Your task to perform on an android device: turn on javascript in the chrome app Image 0: 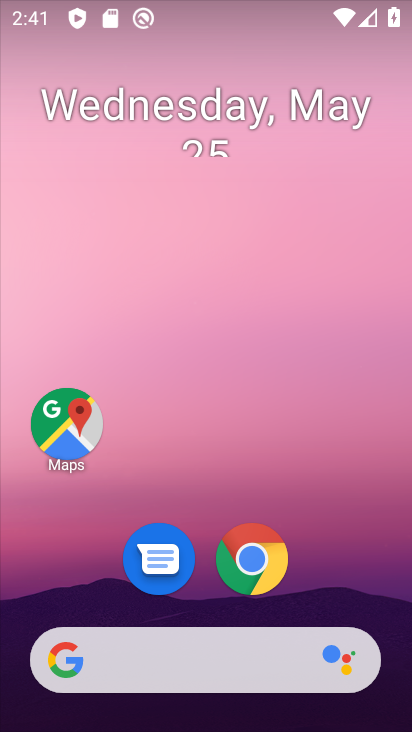
Step 0: click (250, 551)
Your task to perform on an android device: turn on javascript in the chrome app Image 1: 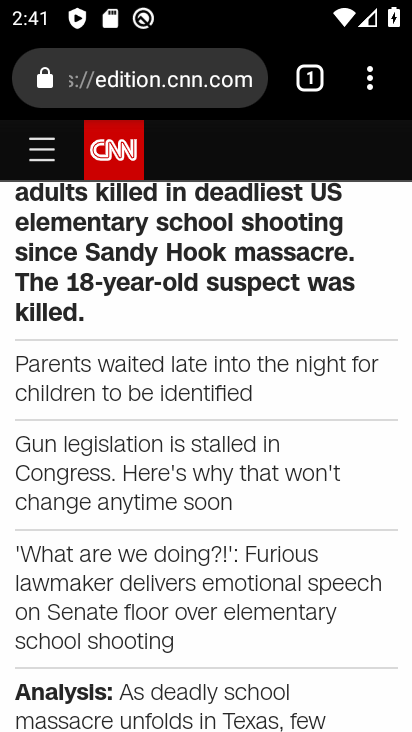
Step 1: press home button
Your task to perform on an android device: turn on javascript in the chrome app Image 2: 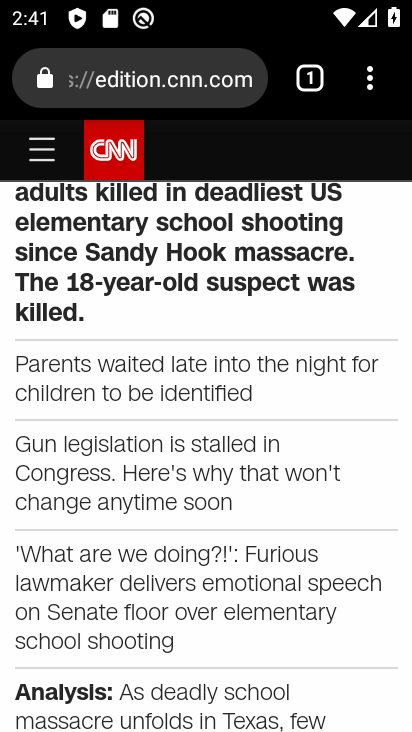
Step 2: press home button
Your task to perform on an android device: turn on javascript in the chrome app Image 3: 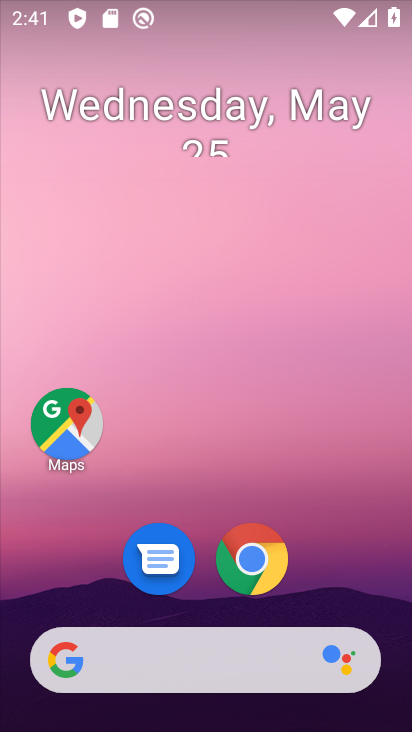
Step 3: click (248, 552)
Your task to perform on an android device: turn on javascript in the chrome app Image 4: 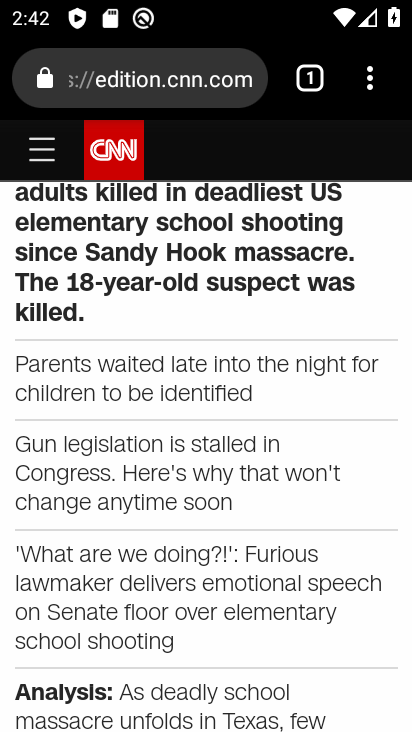
Step 4: click (373, 72)
Your task to perform on an android device: turn on javascript in the chrome app Image 5: 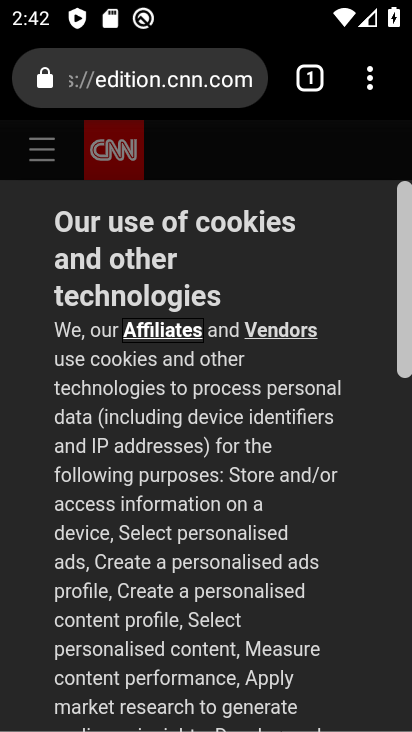
Step 5: drag from (185, 644) to (186, 147)
Your task to perform on an android device: turn on javascript in the chrome app Image 6: 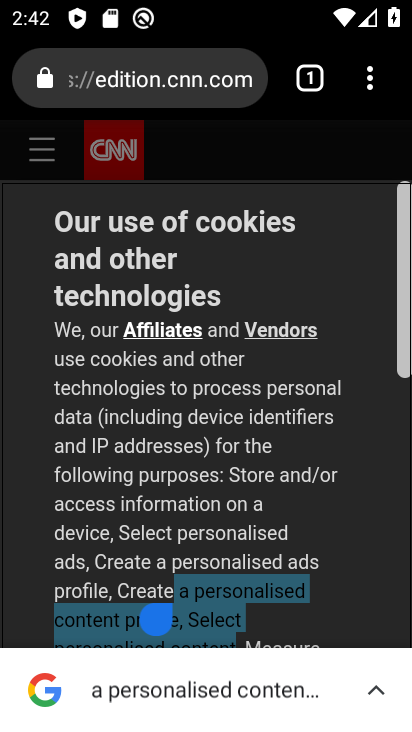
Step 6: click (146, 532)
Your task to perform on an android device: turn on javascript in the chrome app Image 7: 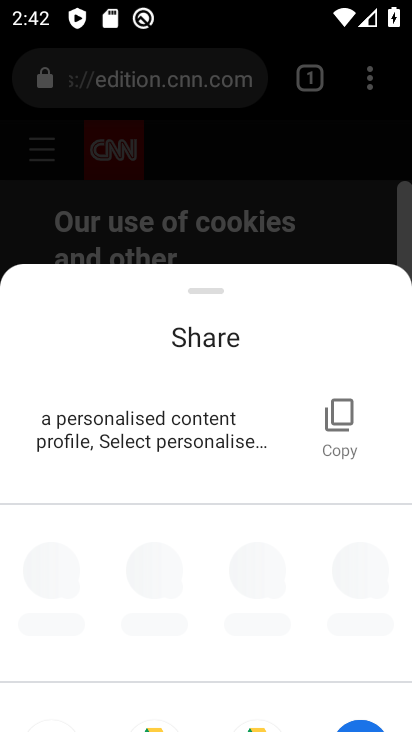
Step 7: click (223, 215)
Your task to perform on an android device: turn on javascript in the chrome app Image 8: 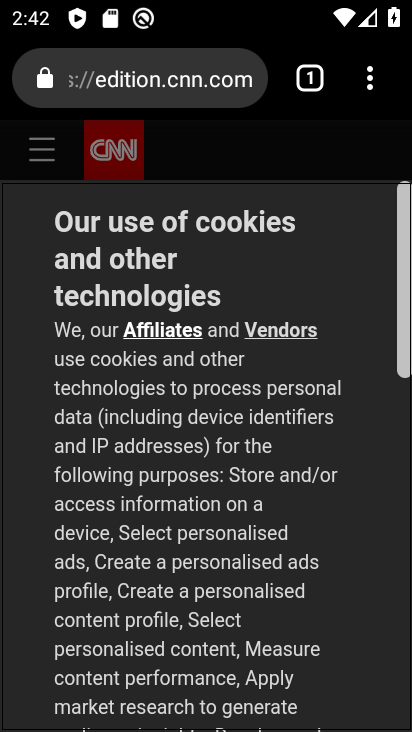
Step 8: click (369, 69)
Your task to perform on an android device: turn on javascript in the chrome app Image 9: 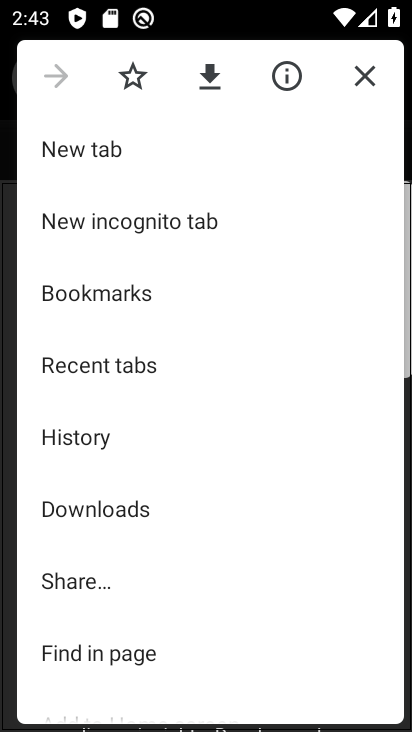
Step 9: drag from (158, 657) to (167, 247)
Your task to perform on an android device: turn on javascript in the chrome app Image 10: 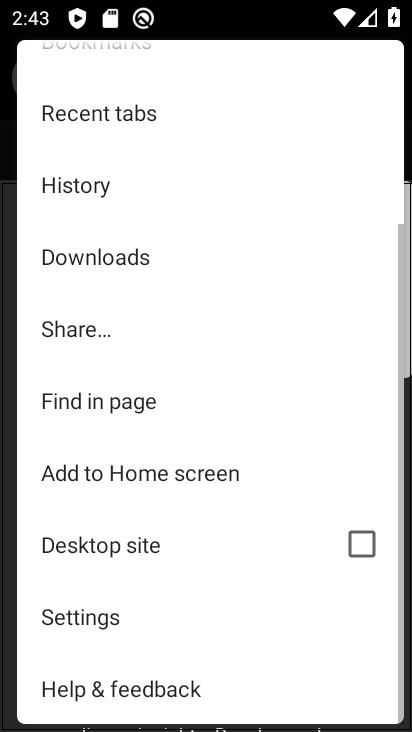
Step 10: click (171, 177)
Your task to perform on an android device: turn on javascript in the chrome app Image 11: 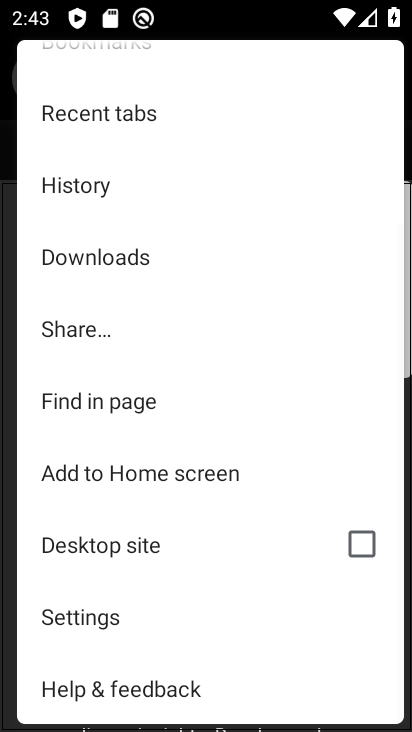
Step 11: click (123, 614)
Your task to perform on an android device: turn on javascript in the chrome app Image 12: 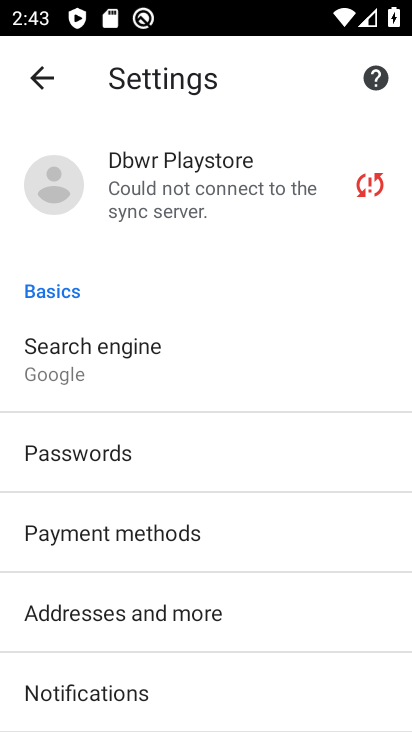
Step 12: drag from (188, 696) to (185, 213)
Your task to perform on an android device: turn on javascript in the chrome app Image 13: 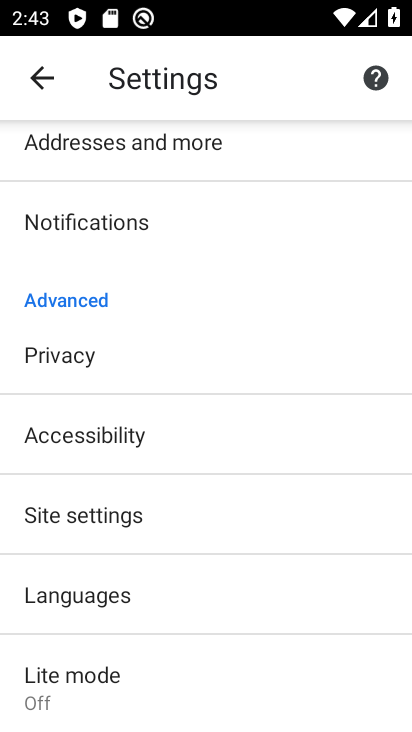
Step 13: click (153, 518)
Your task to perform on an android device: turn on javascript in the chrome app Image 14: 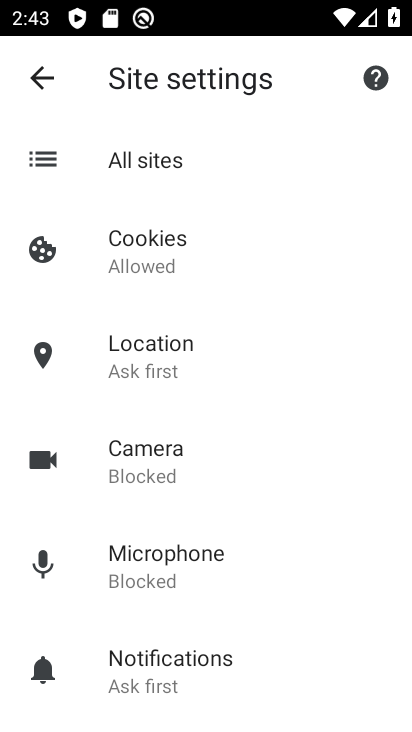
Step 14: drag from (172, 637) to (158, 178)
Your task to perform on an android device: turn on javascript in the chrome app Image 15: 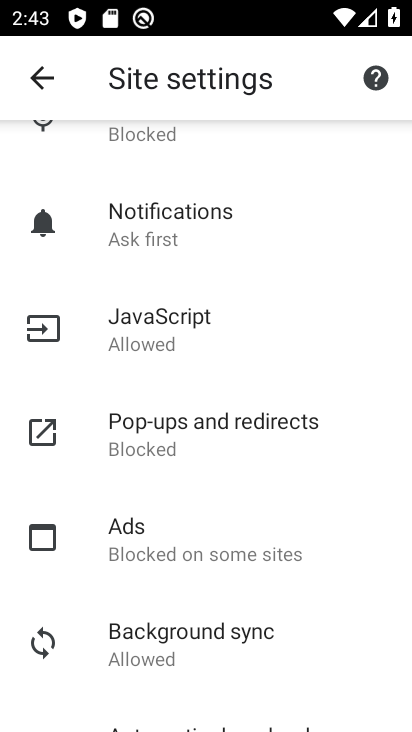
Step 15: click (85, 320)
Your task to perform on an android device: turn on javascript in the chrome app Image 16: 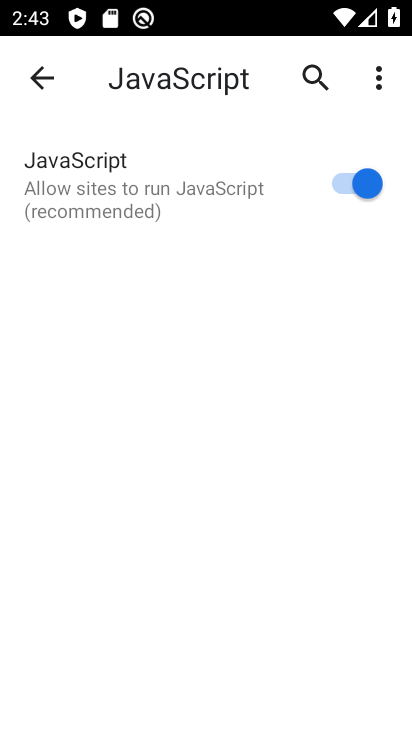
Step 16: task complete